Your task to perform on an android device: toggle show notifications on the lock screen Image 0: 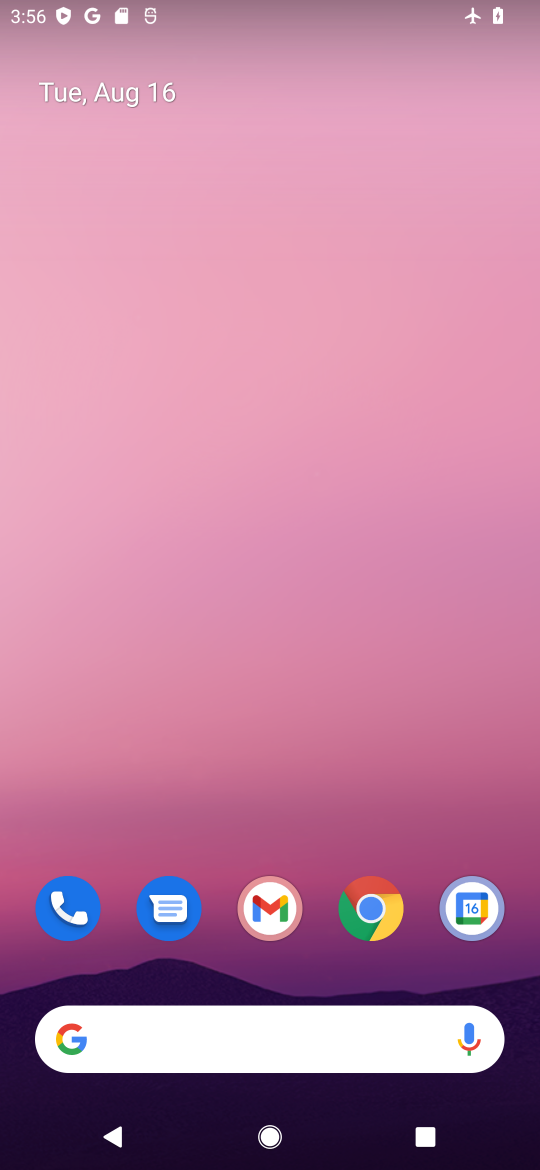
Step 0: drag from (288, 955) to (473, 0)
Your task to perform on an android device: toggle show notifications on the lock screen Image 1: 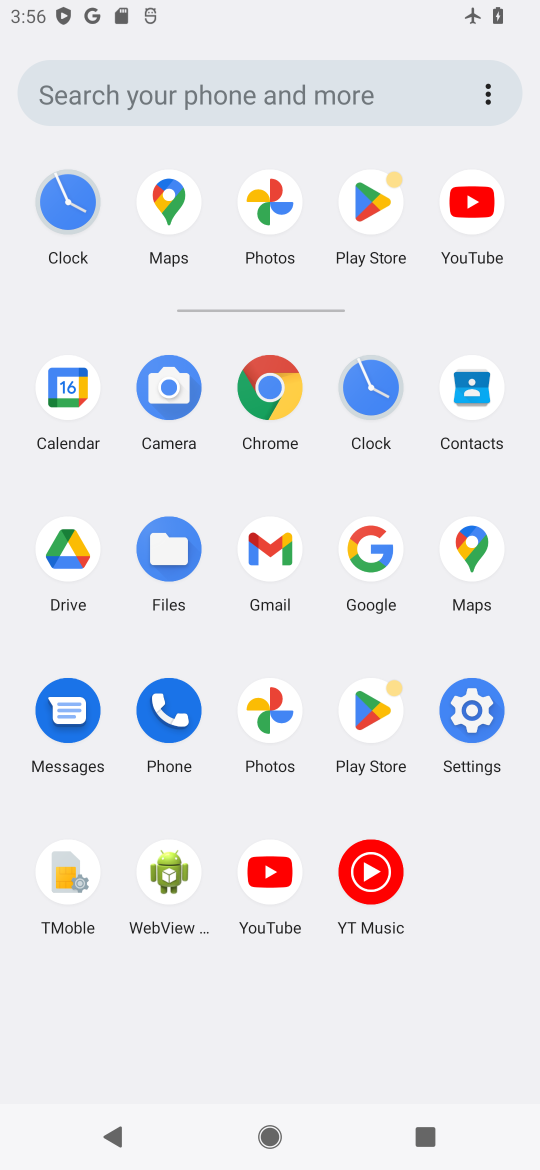
Step 1: click (470, 725)
Your task to perform on an android device: toggle show notifications on the lock screen Image 2: 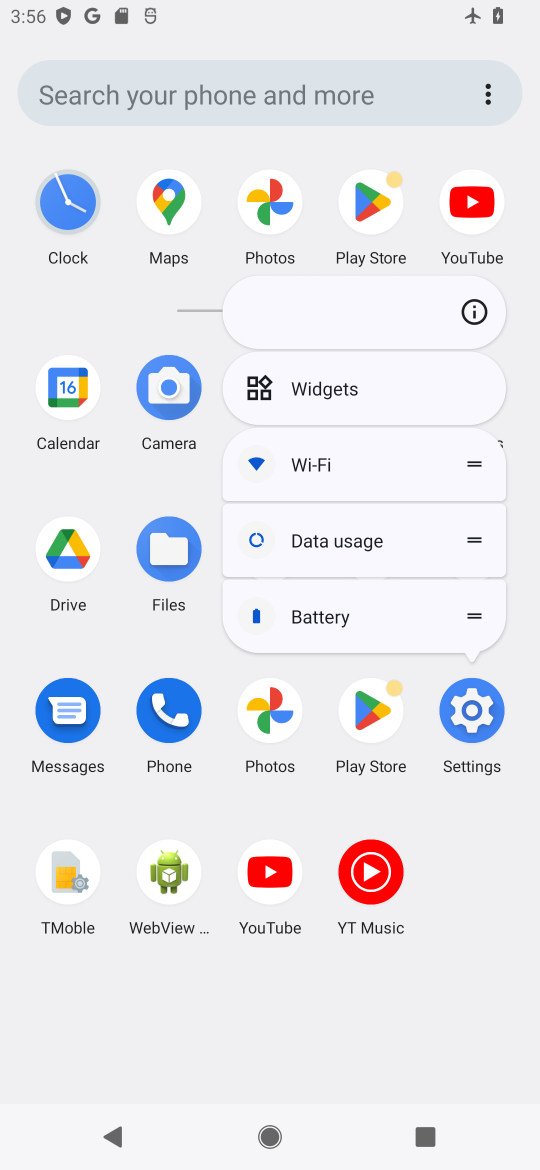
Step 2: click (488, 709)
Your task to perform on an android device: toggle show notifications on the lock screen Image 3: 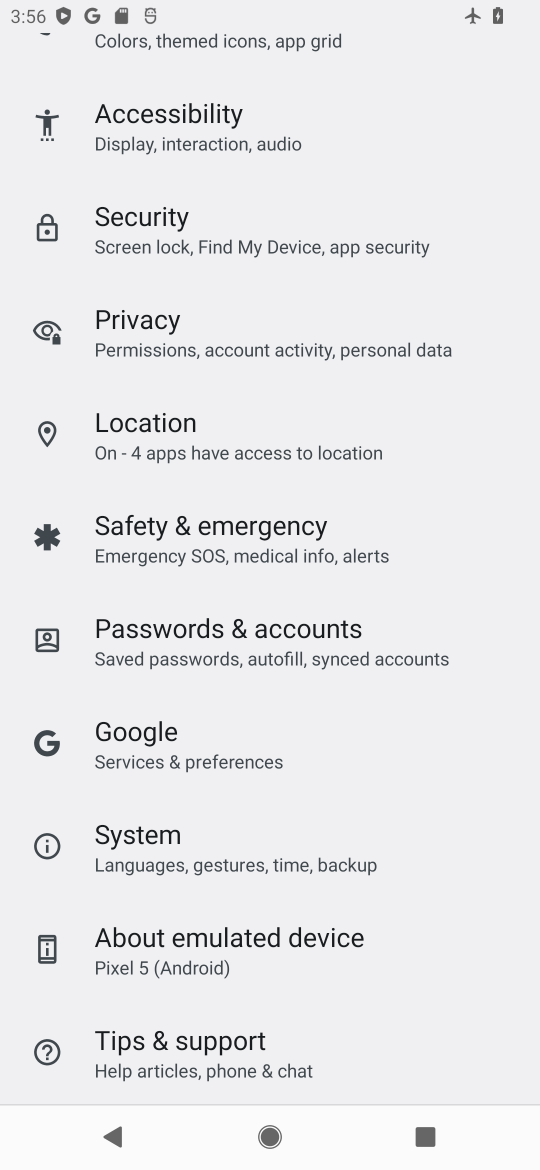
Step 3: drag from (330, 327) to (328, 1169)
Your task to perform on an android device: toggle show notifications on the lock screen Image 4: 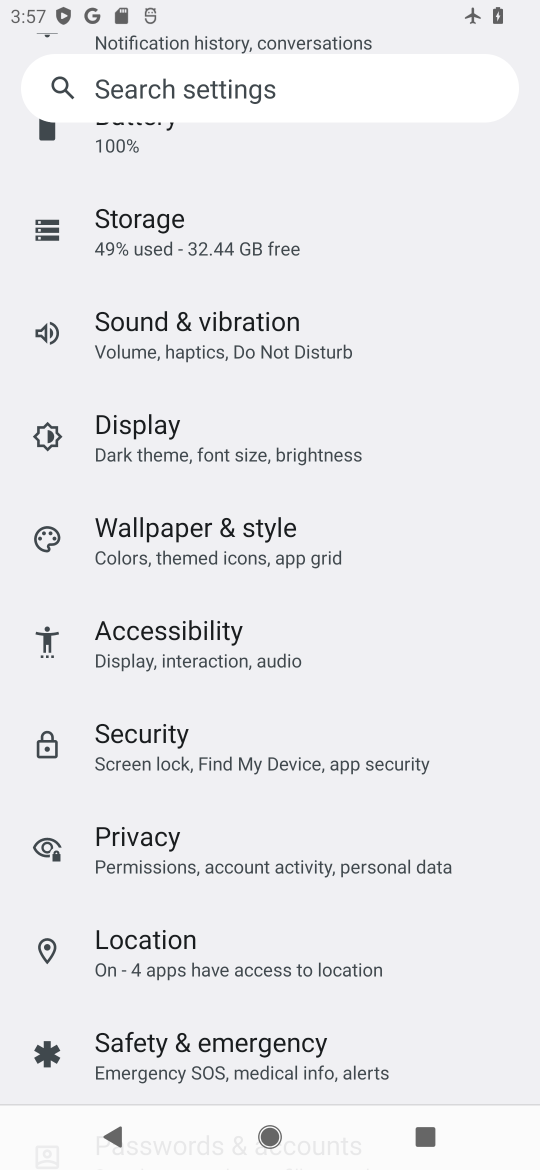
Step 4: drag from (325, 352) to (240, 1169)
Your task to perform on an android device: toggle show notifications on the lock screen Image 5: 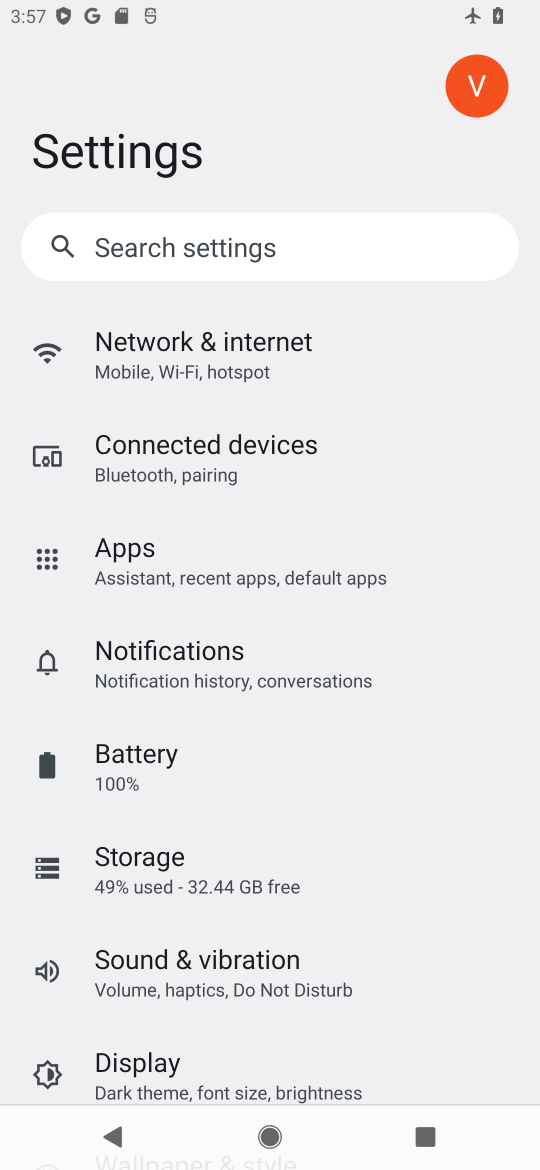
Step 5: click (242, 660)
Your task to perform on an android device: toggle show notifications on the lock screen Image 6: 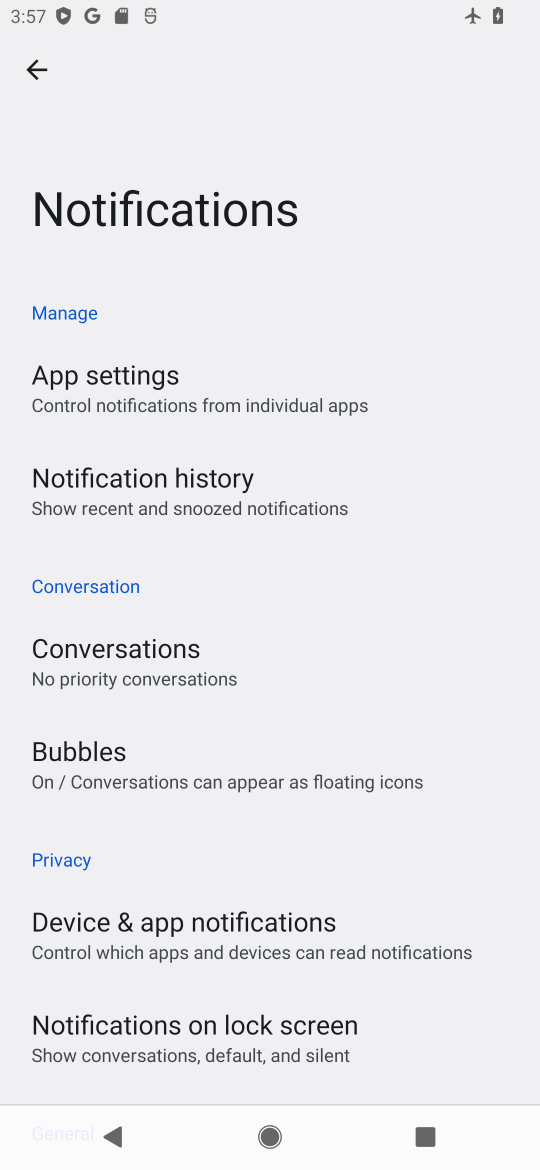
Step 6: click (262, 1034)
Your task to perform on an android device: toggle show notifications on the lock screen Image 7: 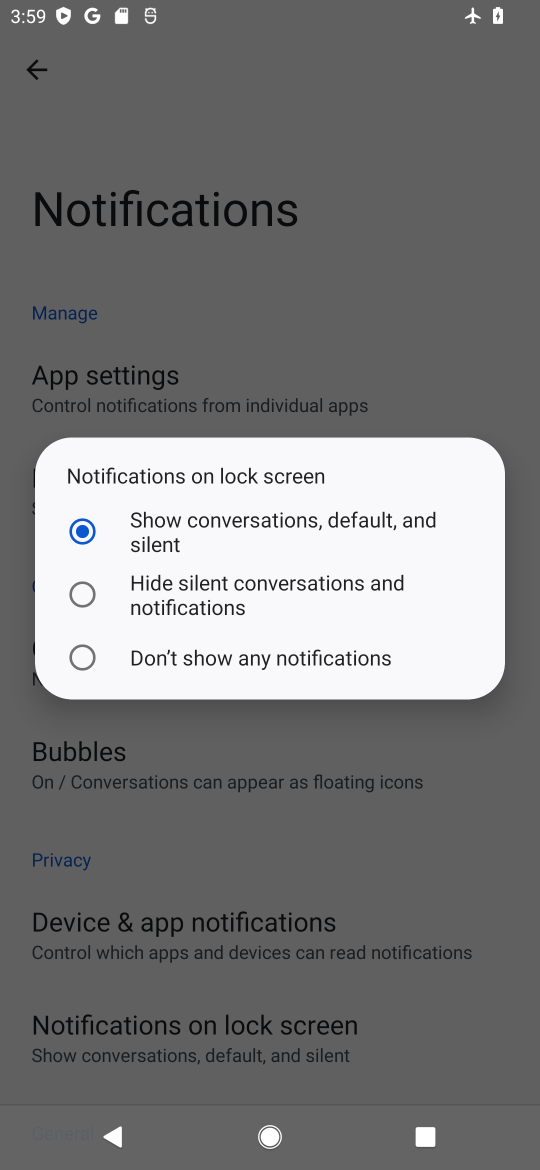
Step 7: task complete